Your task to perform on an android device: Search for a coffee table on IKEA Image 0: 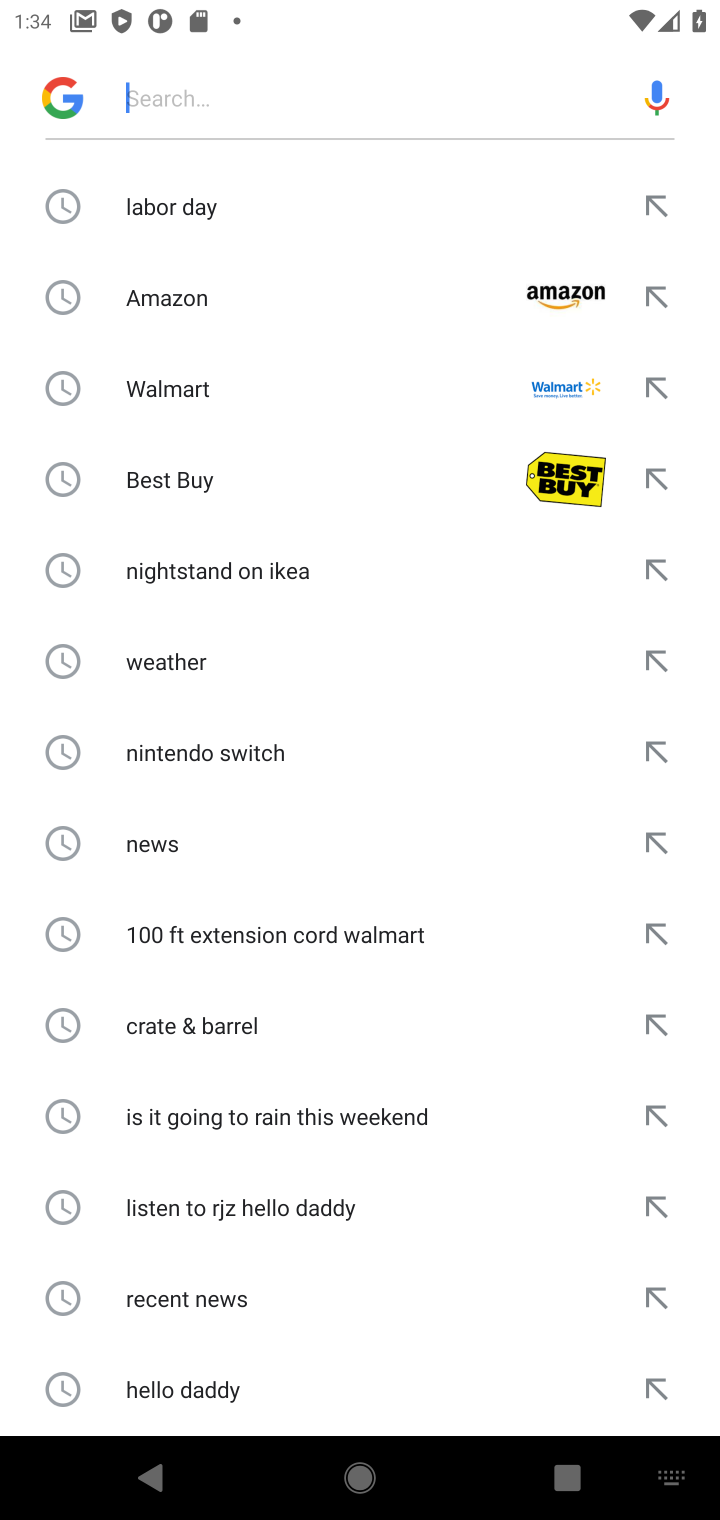
Step 0: press home button
Your task to perform on an android device: Search for a coffee table on IKEA Image 1: 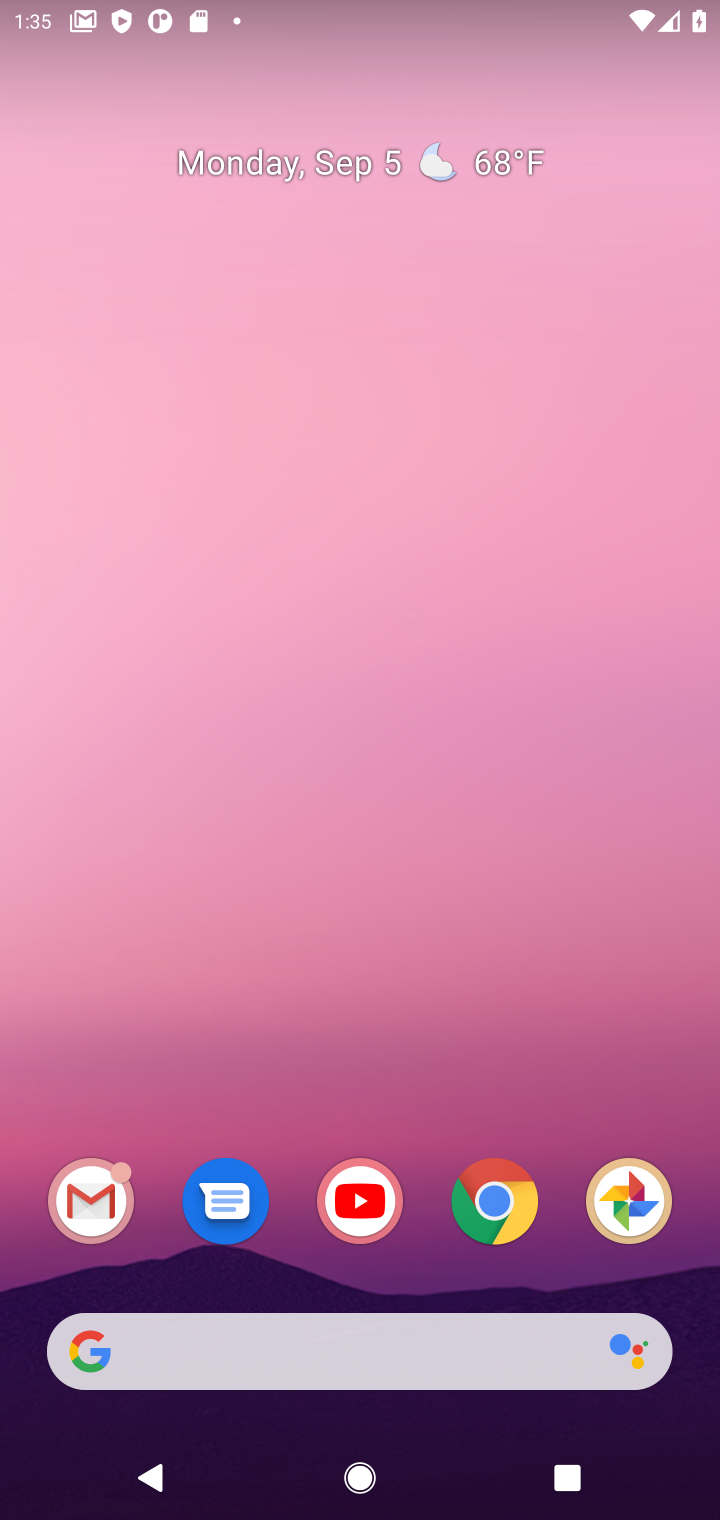
Step 1: click (473, 1210)
Your task to perform on an android device: Search for a coffee table on IKEA Image 2: 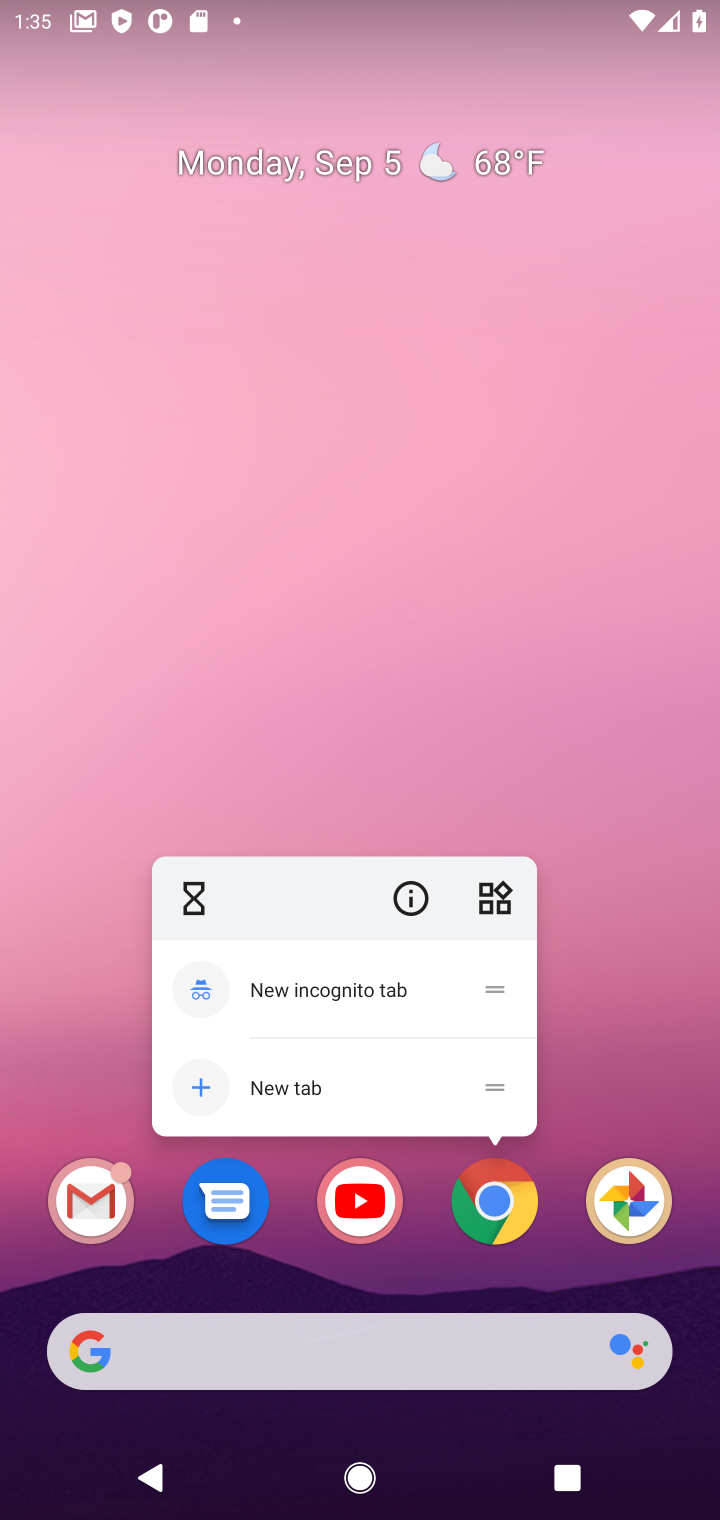
Step 2: click (473, 1211)
Your task to perform on an android device: Search for a coffee table on IKEA Image 3: 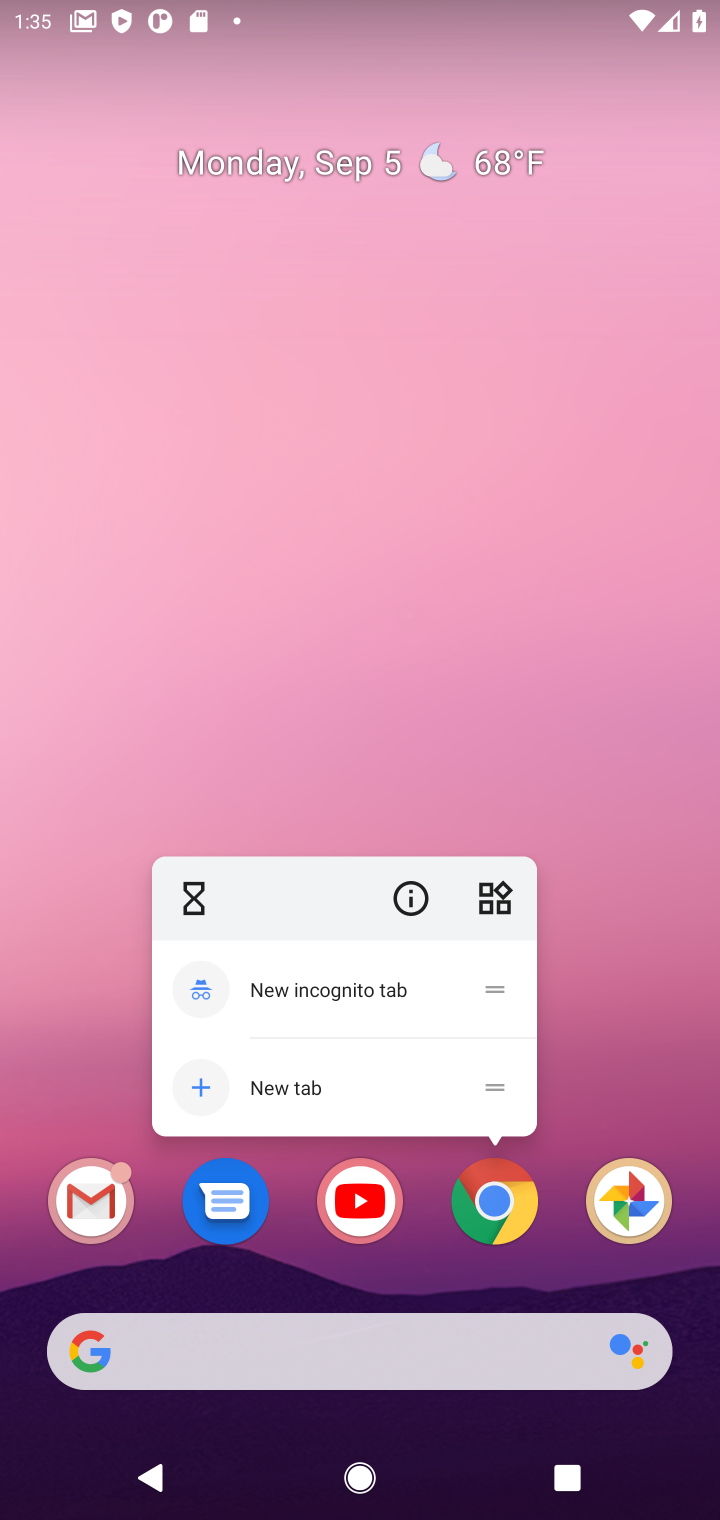
Step 3: click (473, 1215)
Your task to perform on an android device: Search for a coffee table on IKEA Image 4: 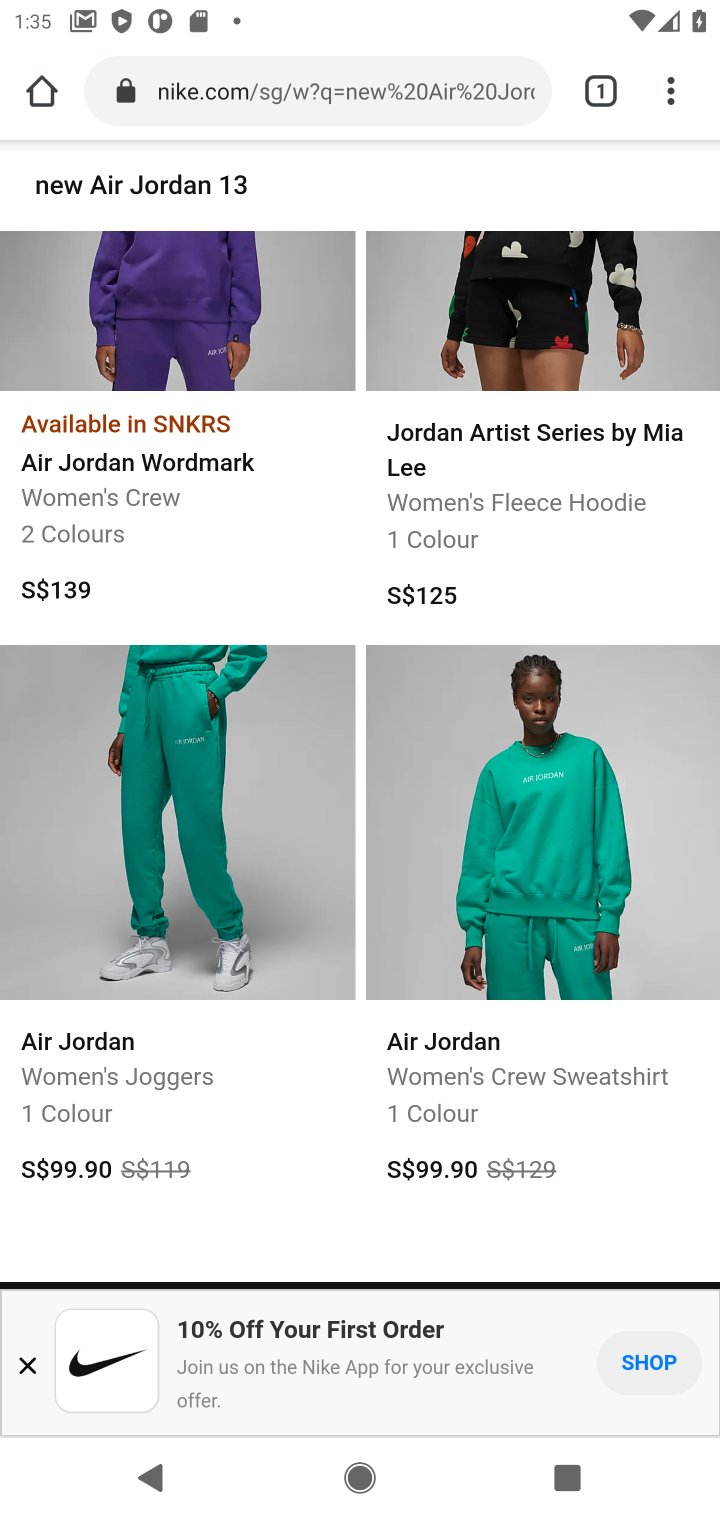
Step 4: click (341, 84)
Your task to perform on an android device: Search for a coffee table on IKEA Image 5: 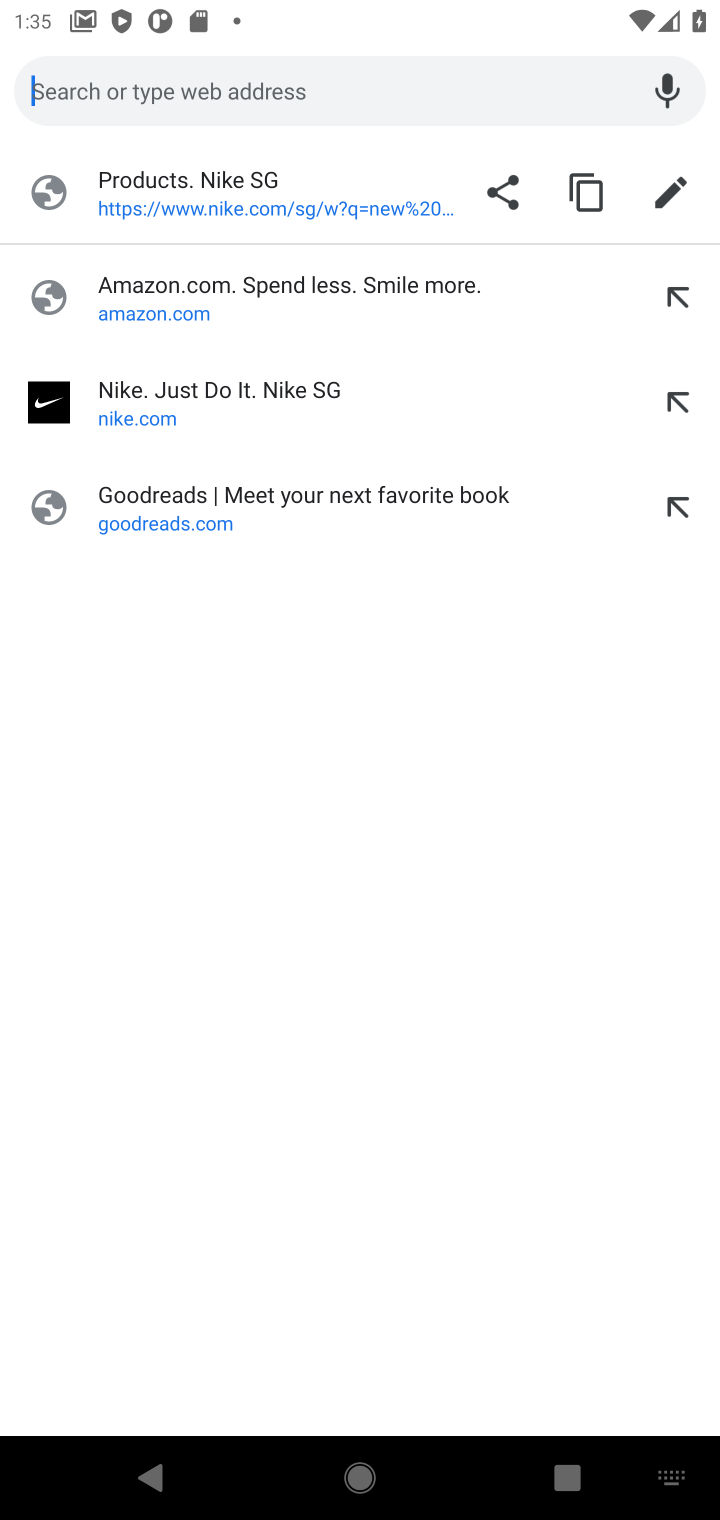
Step 5: type "IKEA"
Your task to perform on an android device: Search for a coffee table on IKEA Image 6: 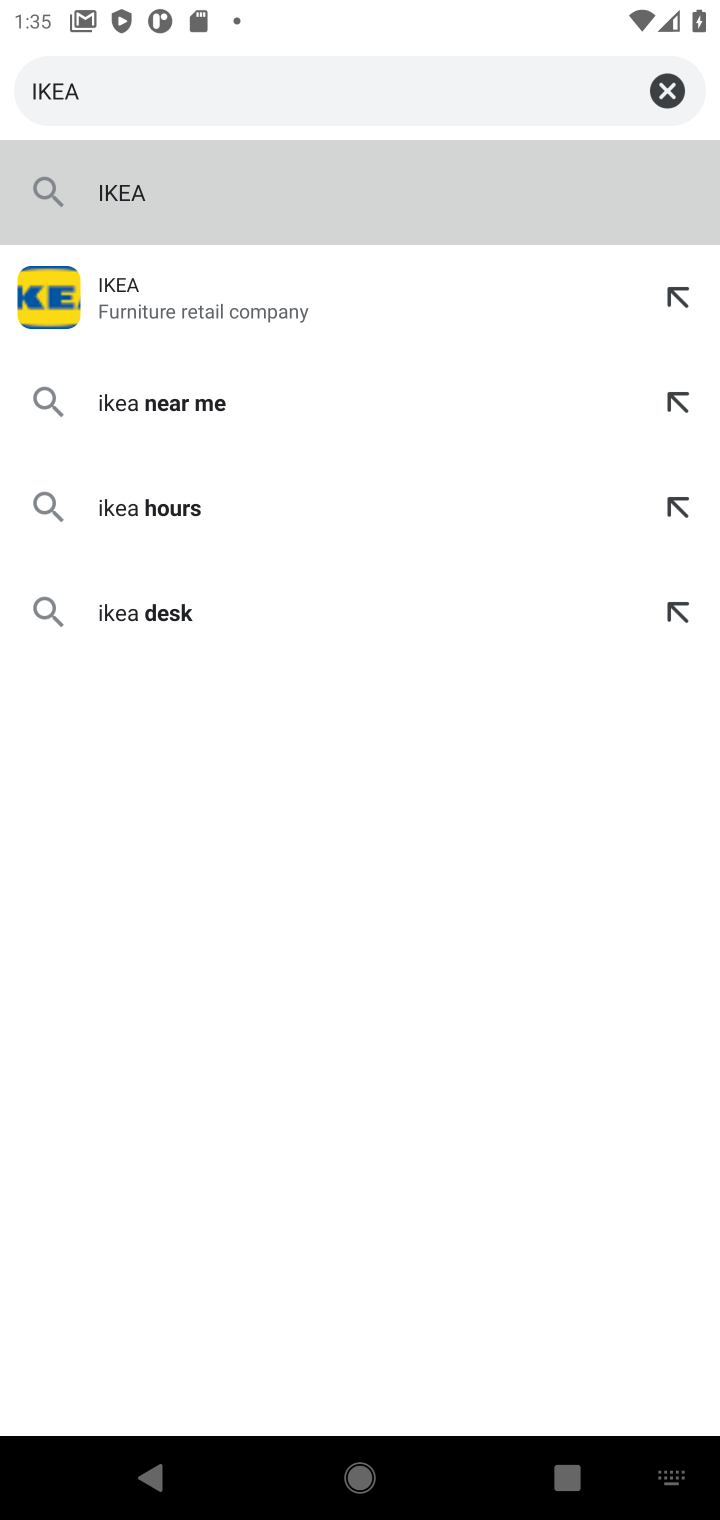
Step 6: press enter
Your task to perform on an android device: Search for a coffee table on IKEA Image 7: 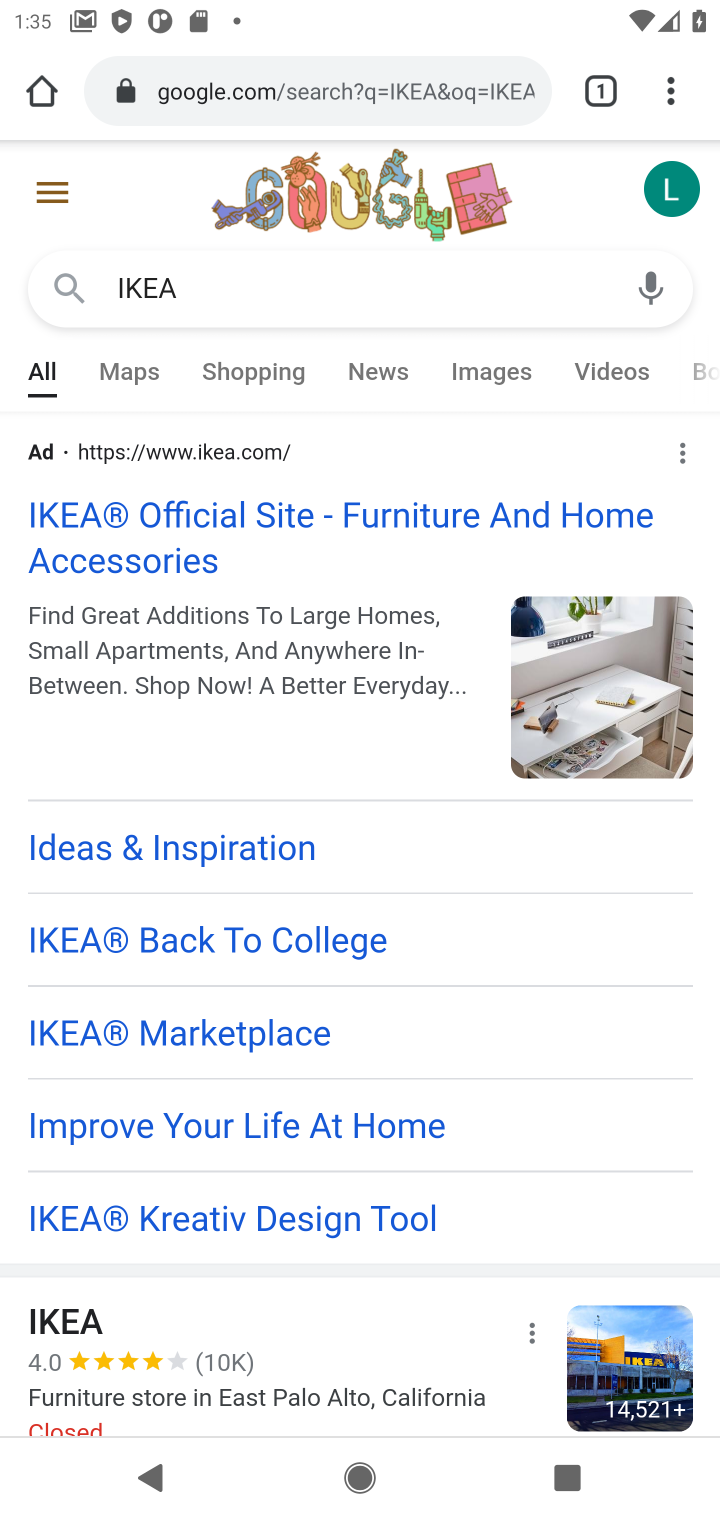
Step 7: click (205, 522)
Your task to perform on an android device: Search for a coffee table on IKEA Image 8: 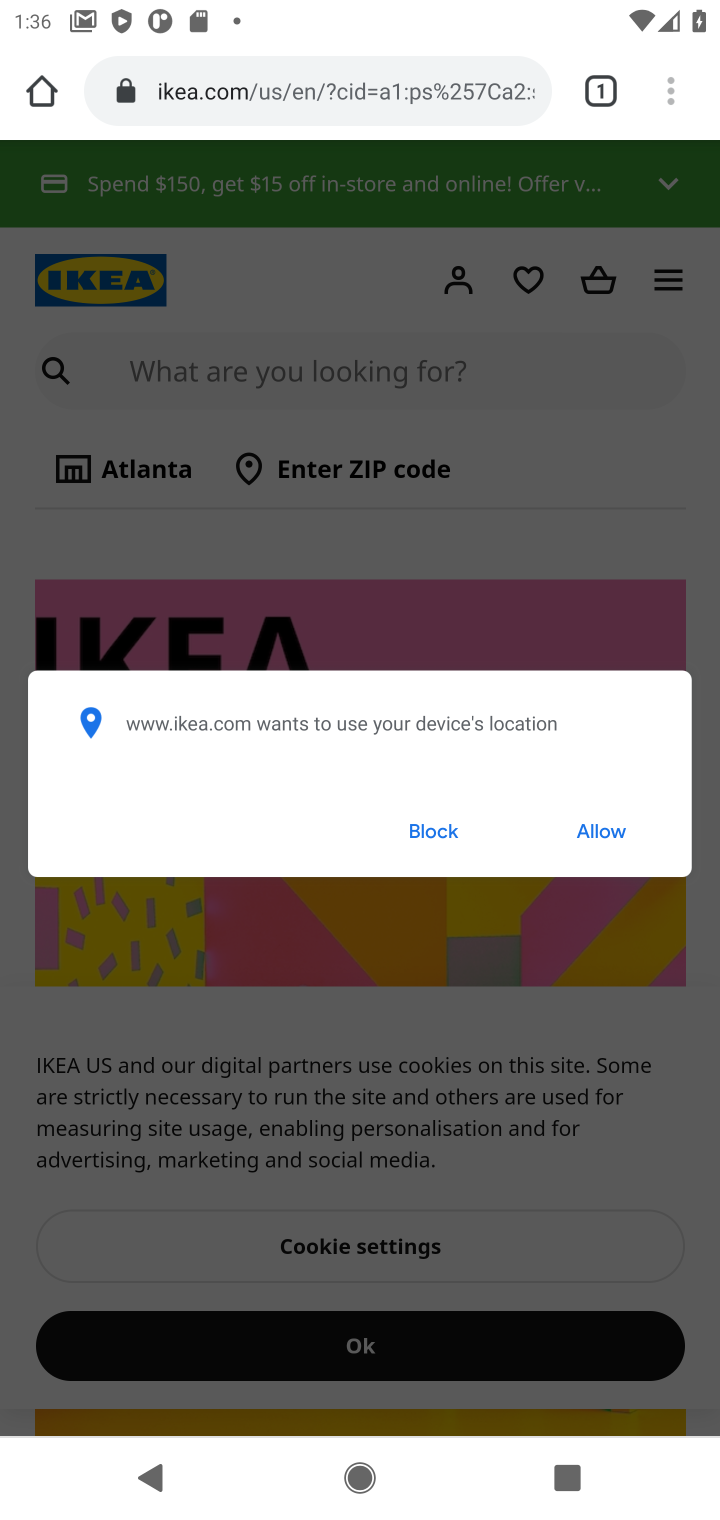
Step 8: click (438, 824)
Your task to perform on an android device: Search for a coffee table on IKEA Image 9: 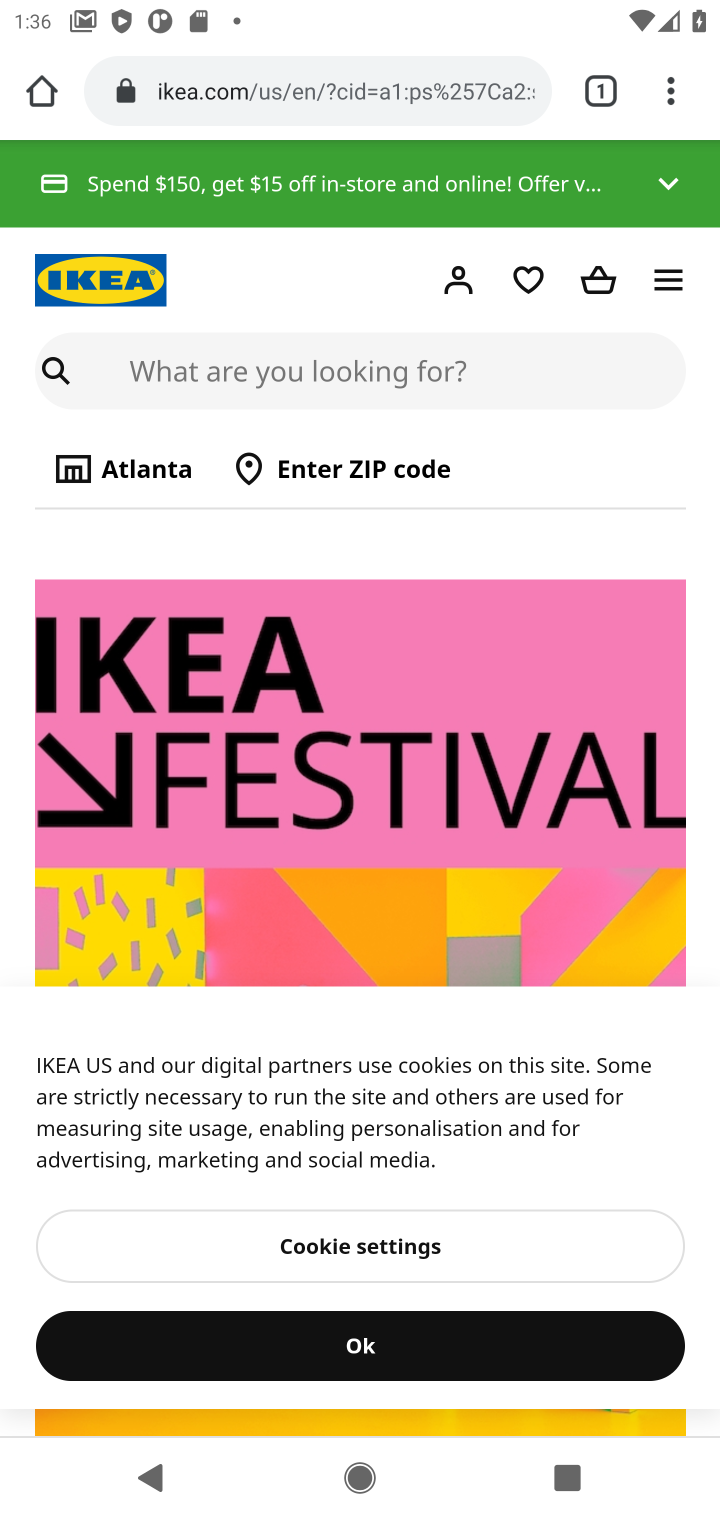
Step 9: click (303, 377)
Your task to perform on an android device: Search for a coffee table on IKEA Image 10: 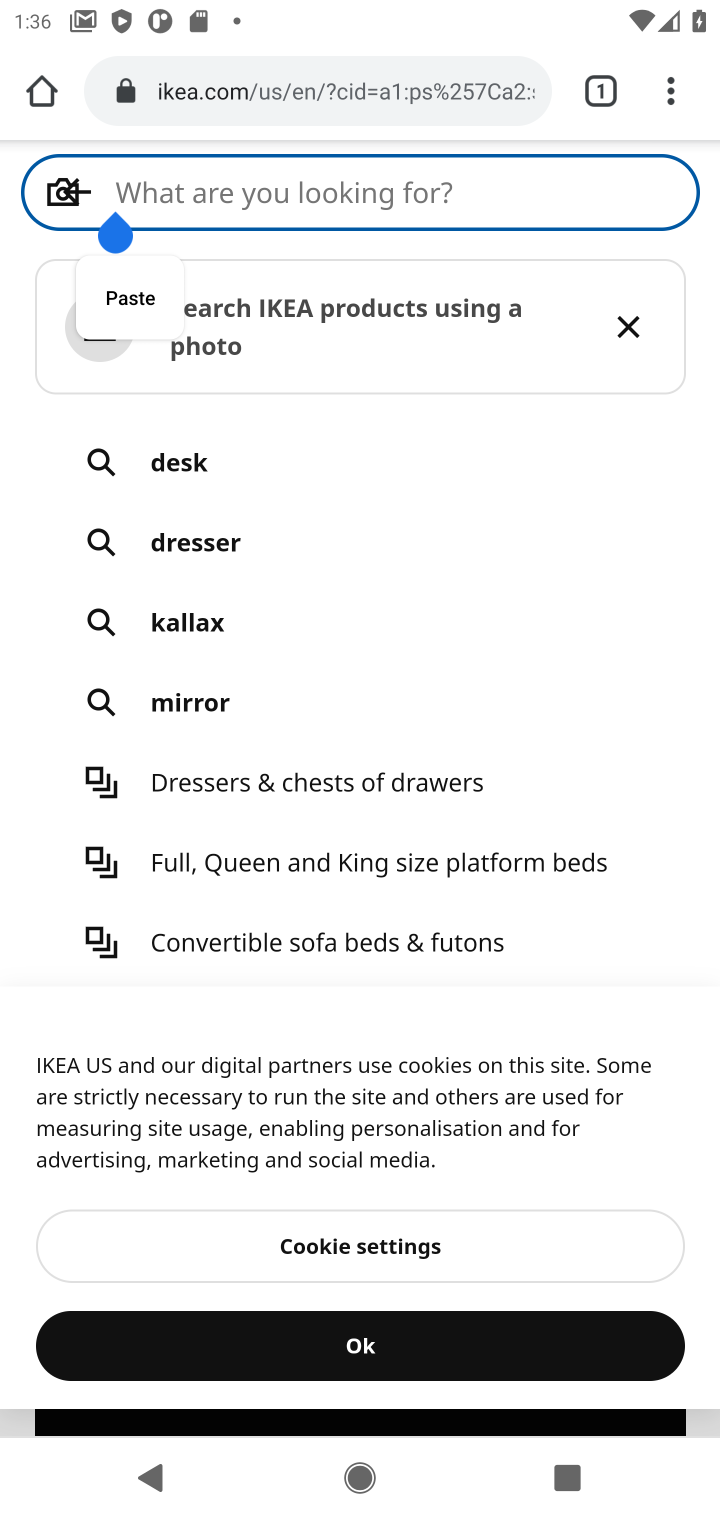
Step 10: type "coffee table"
Your task to perform on an android device: Search for a coffee table on IKEA Image 11: 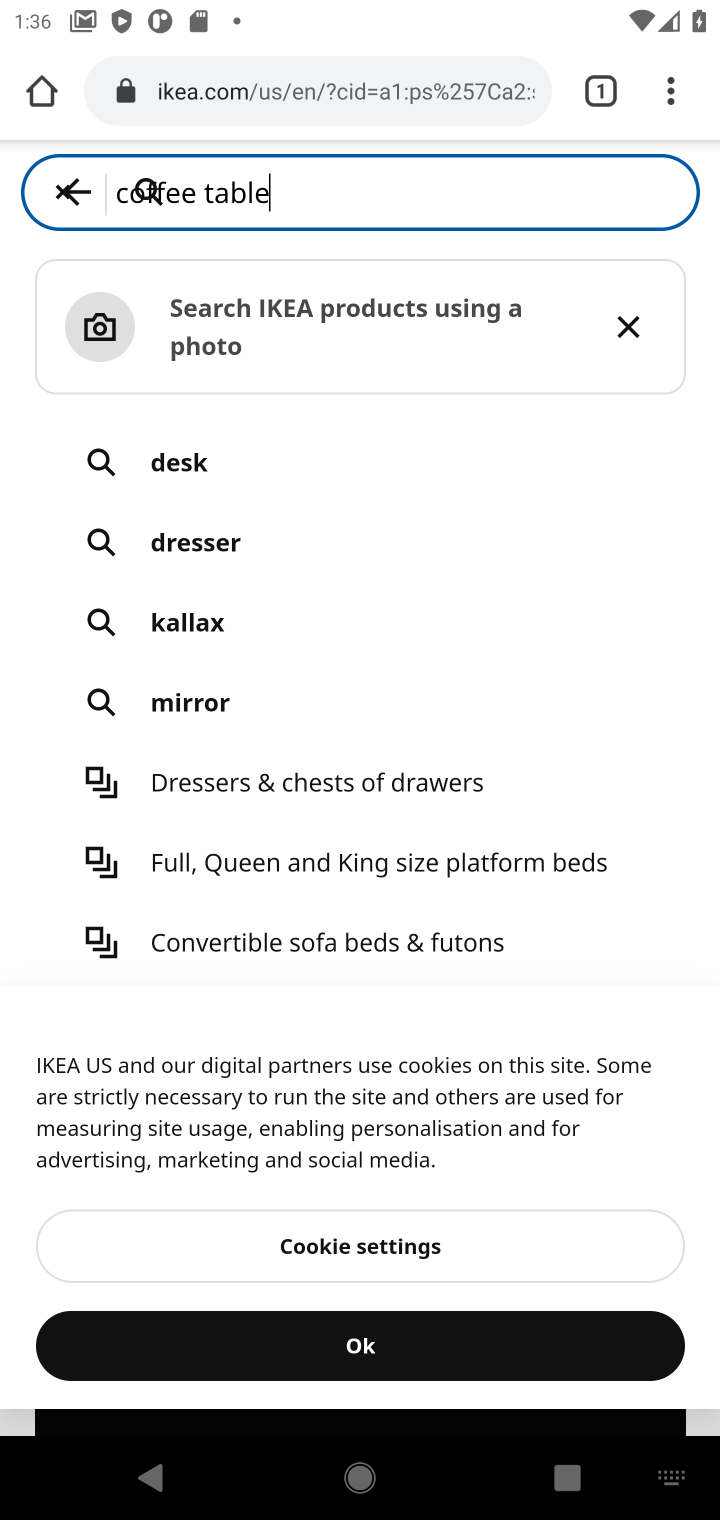
Step 11: press enter
Your task to perform on an android device: Search for a coffee table on IKEA Image 12: 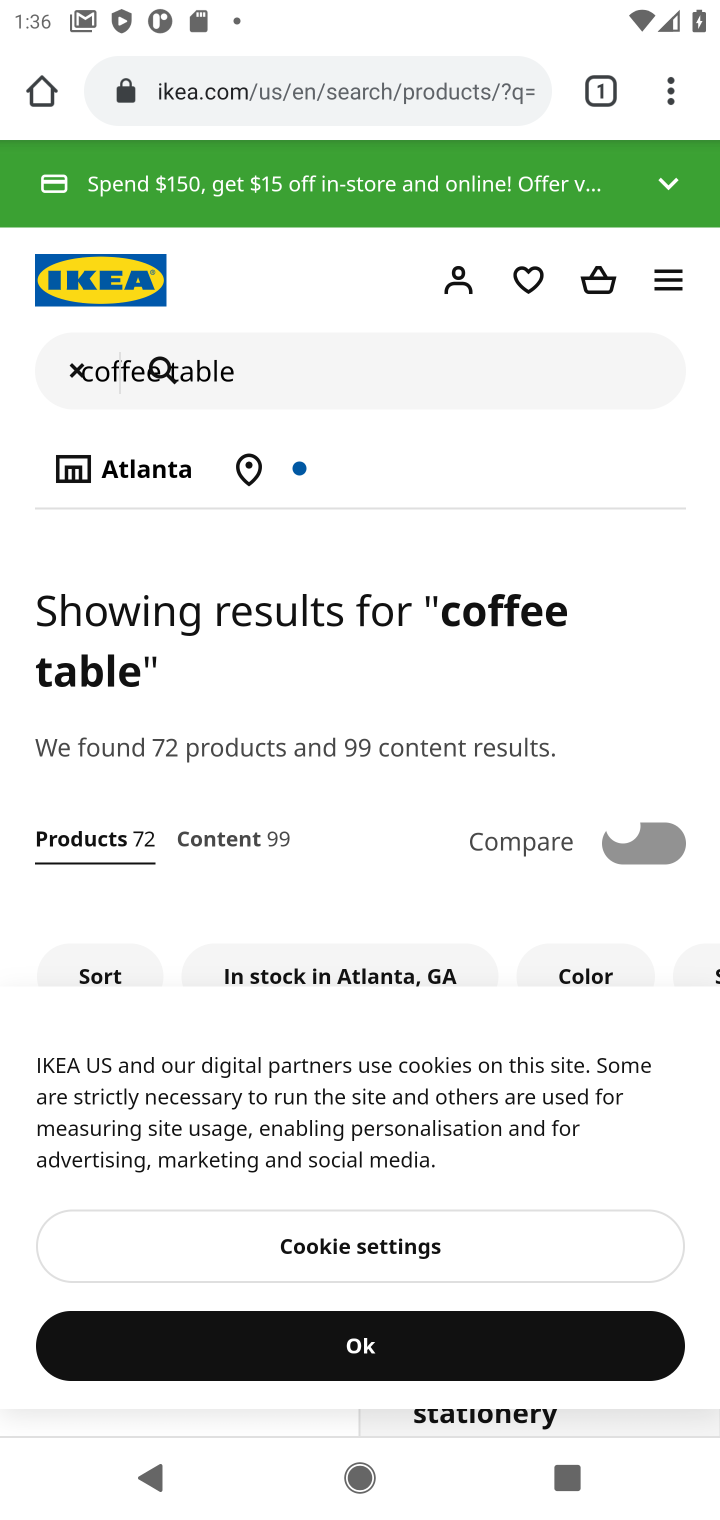
Step 12: drag from (364, 912) to (463, 129)
Your task to perform on an android device: Search for a coffee table on IKEA Image 13: 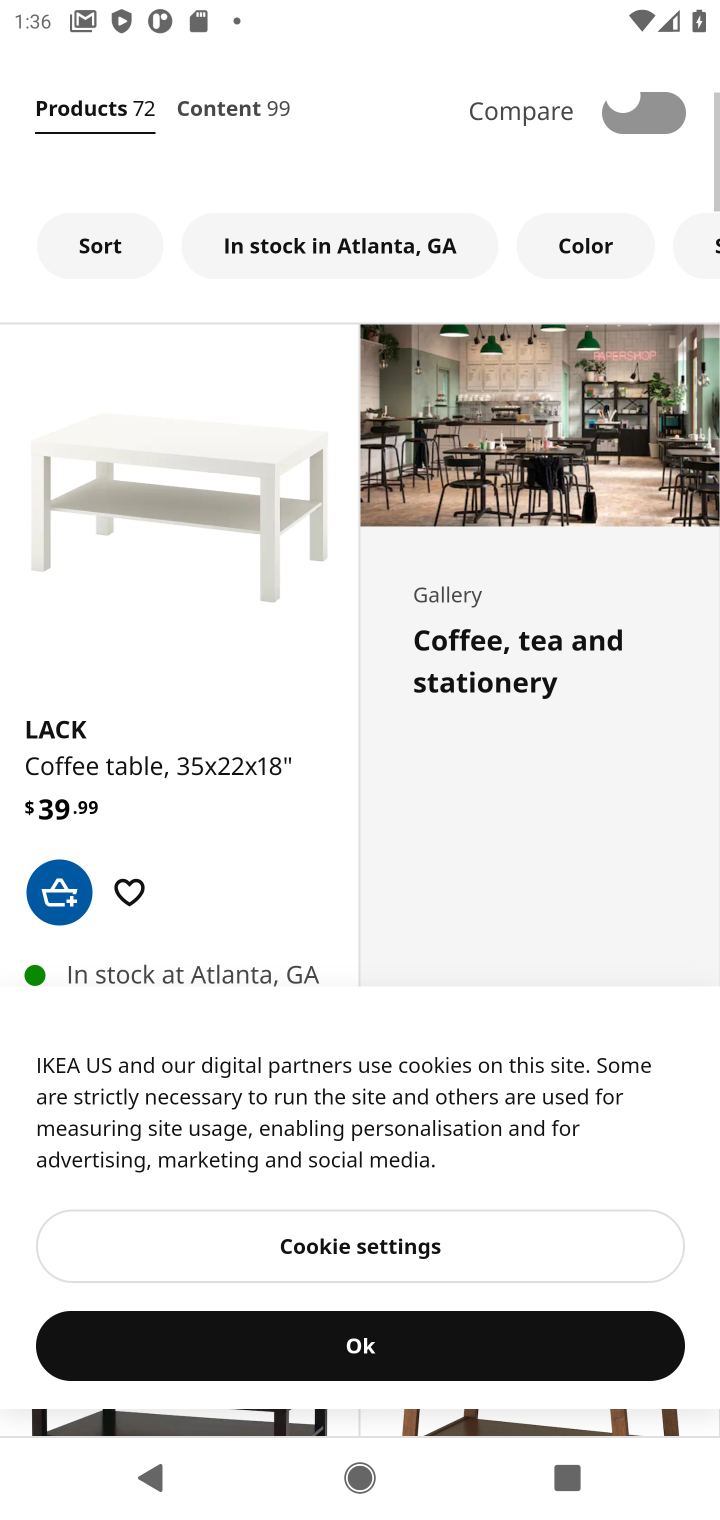
Step 13: click (370, 1347)
Your task to perform on an android device: Search for a coffee table on IKEA Image 14: 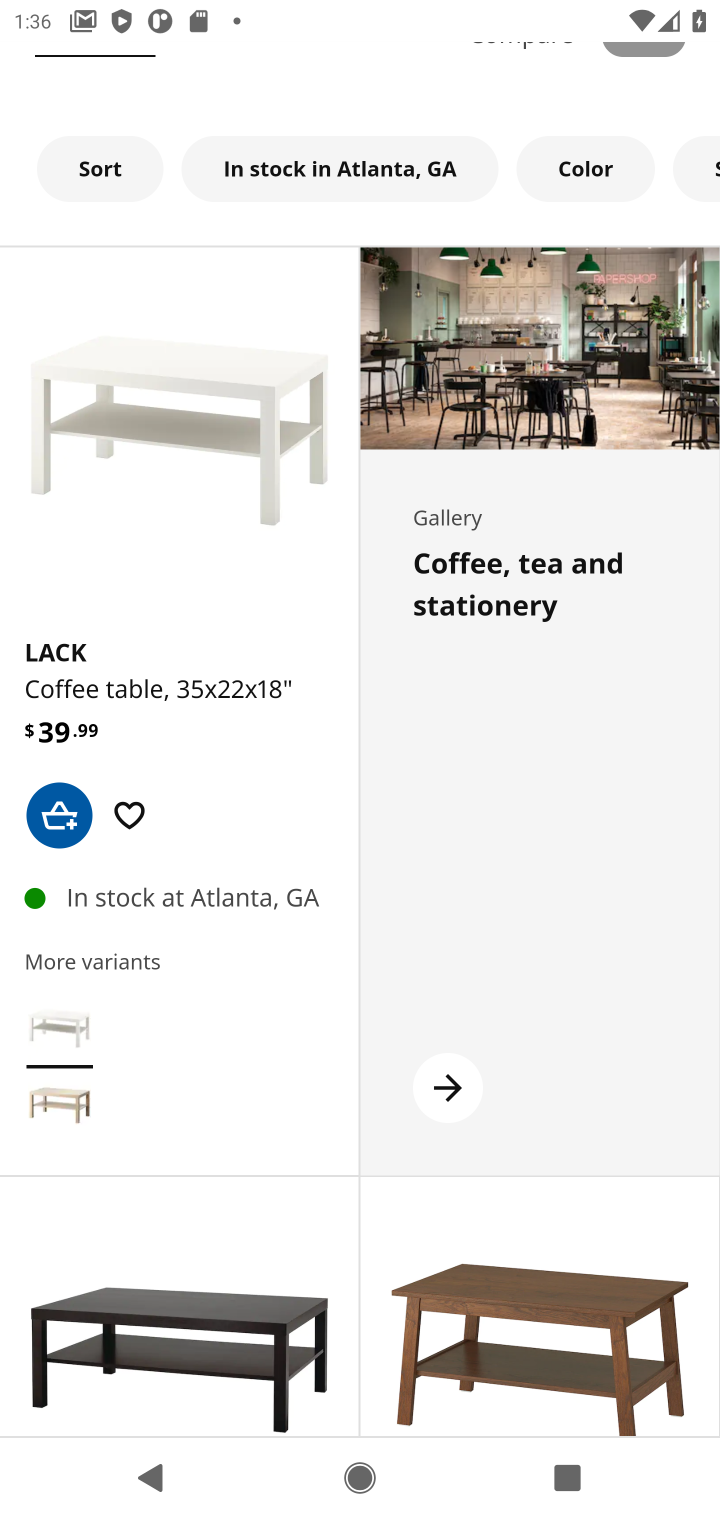
Step 14: task complete